Your task to perform on an android device: toggle wifi Image 0: 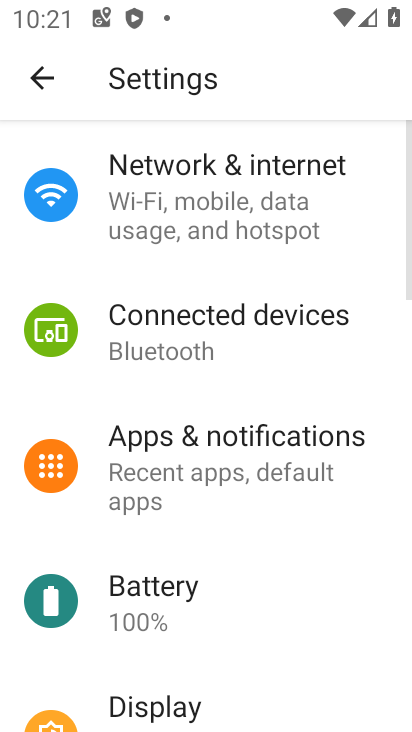
Step 0: press home button
Your task to perform on an android device: toggle wifi Image 1: 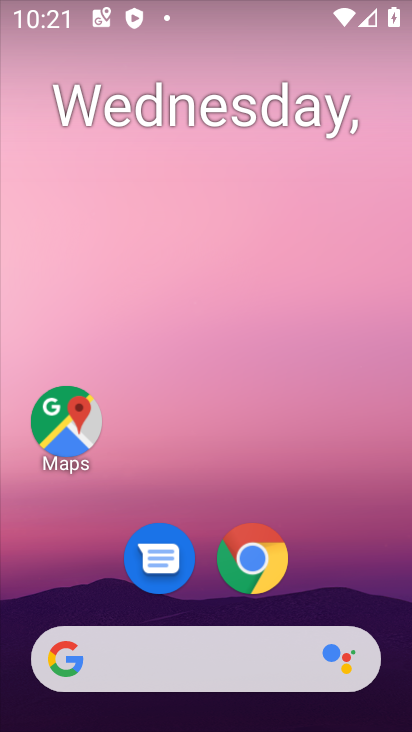
Step 1: drag from (137, 4) to (117, 602)
Your task to perform on an android device: toggle wifi Image 2: 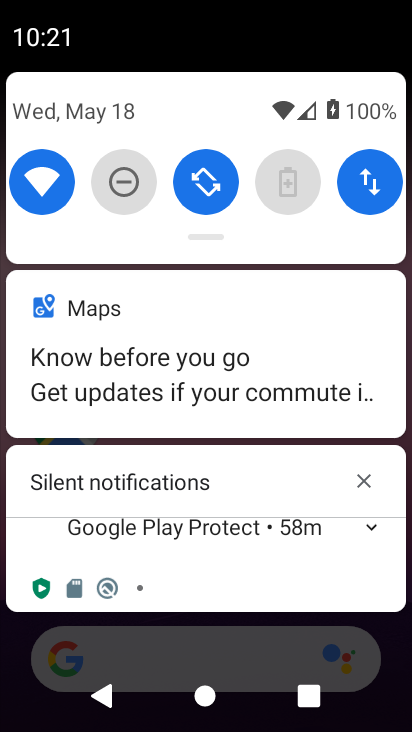
Step 2: click (51, 185)
Your task to perform on an android device: toggle wifi Image 3: 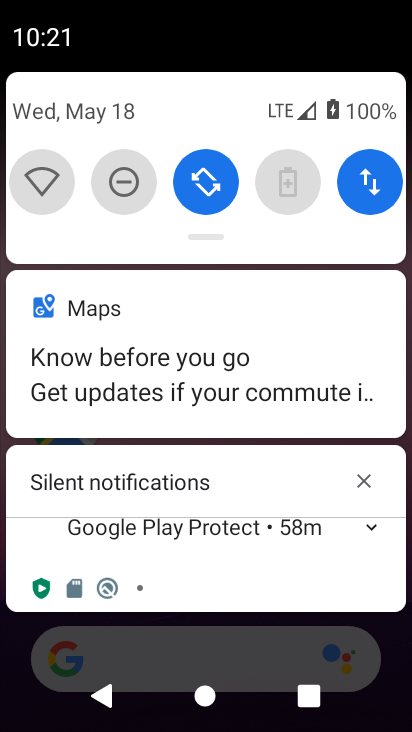
Step 3: task complete